Your task to perform on an android device: What is the news today? Image 0: 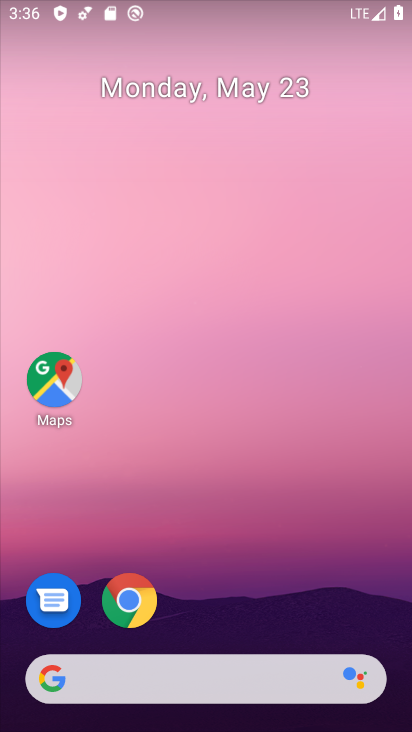
Step 0: click (99, 681)
Your task to perform on an android device: What is the news today? Image 1: 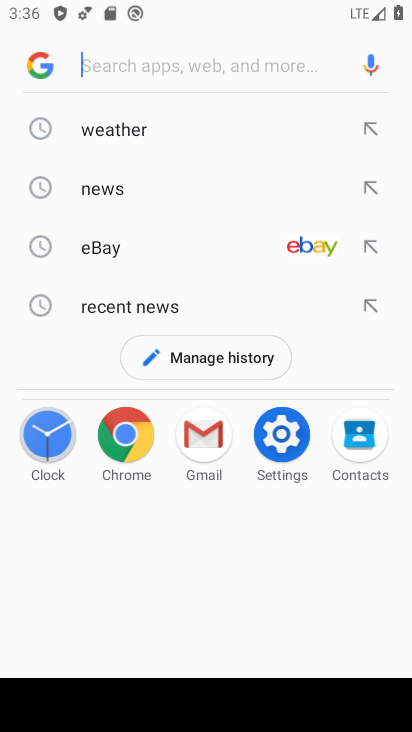
Step 1: click (119, 56)
Your task to perform on an android device: What is the news today? Image 2: 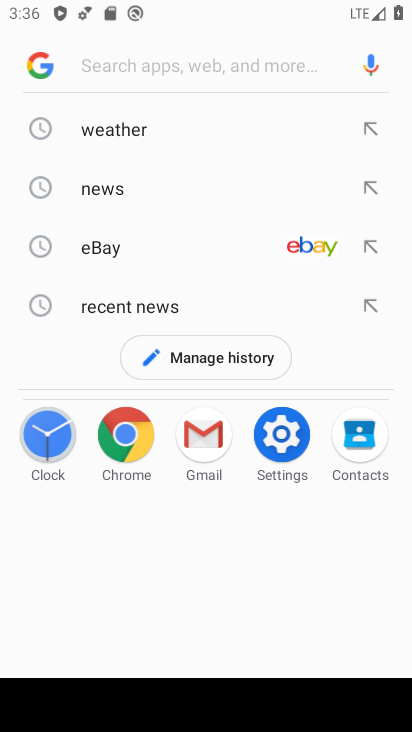
Step 2: type "news today"
Your task to perform on an android device: What is the news today? Image 3: 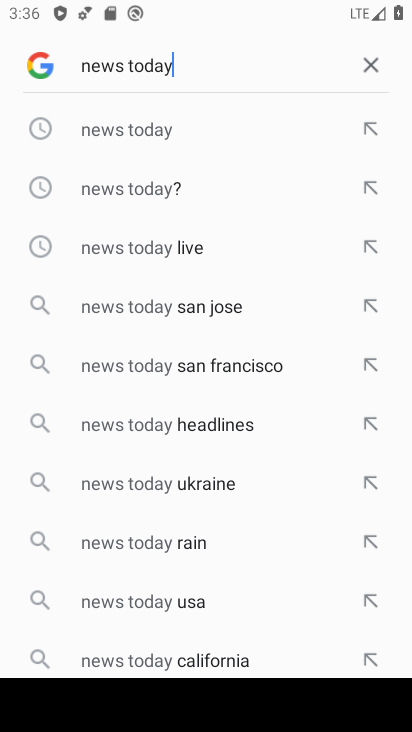
Step 3: click (112, 134)
Your task to perform on an android device: What is the news today? Image 4: 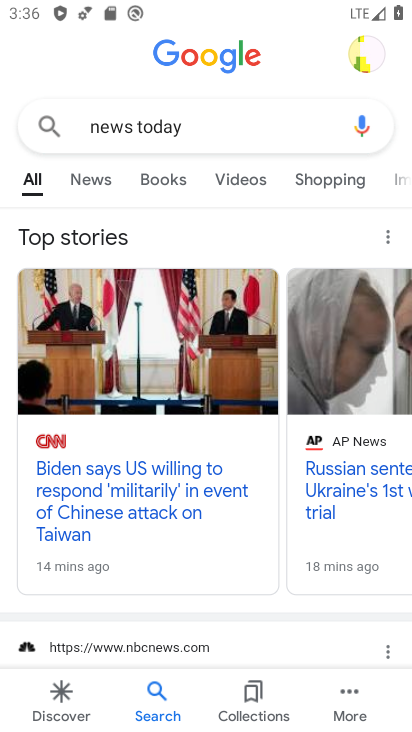
Step 4: click (133, 493)
Your task to perform on an android device: What is the news today? Image 5: 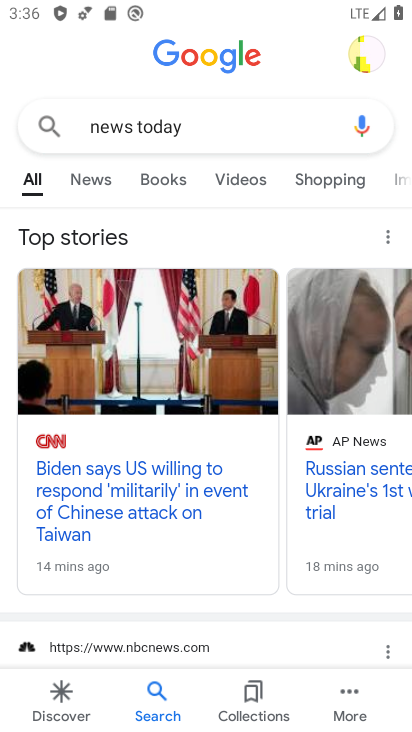
Step 5: click (102, 184)
Your task to perform on an android device: What is the news today? Image 6: 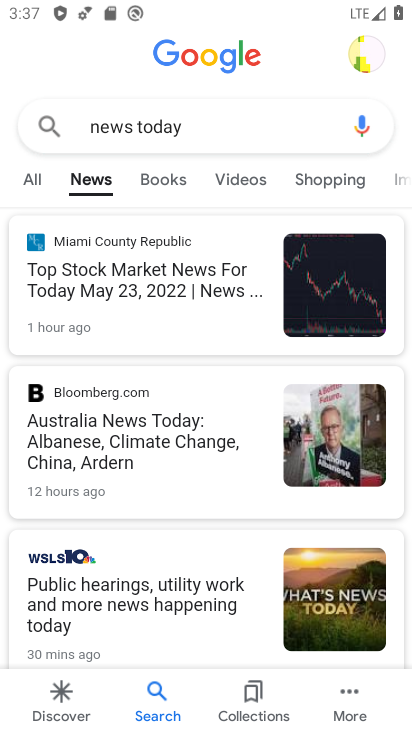
Step 6: drag from (116, 454) to (120, 353)
Your task to perform on an android device: What is the news today? Image 7: 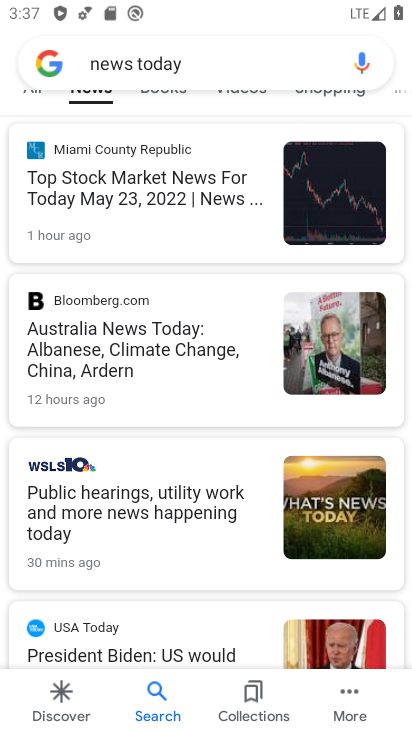
Step 7: click (124, 211)
Your task to perform on an android device: What is the news today? Image 8: 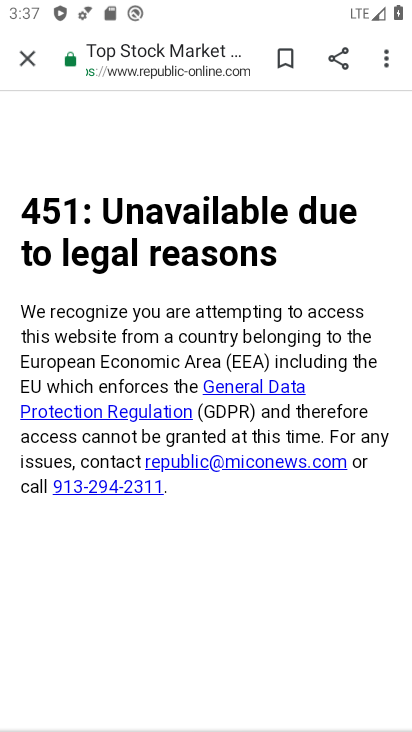
Step 8: task complete